Your task to perform on an android device: see creations saved in the google photos Image 0: 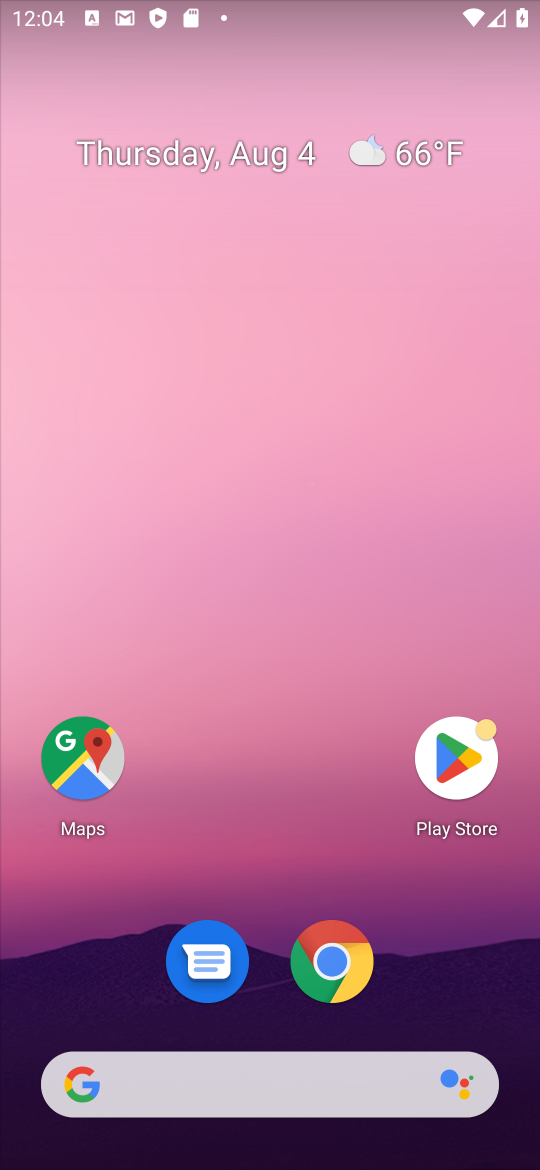
Step 0: drag from (264, 738) to (362, 18)
Your task to perform on an android device: see creations saved in the google photos Image 1: 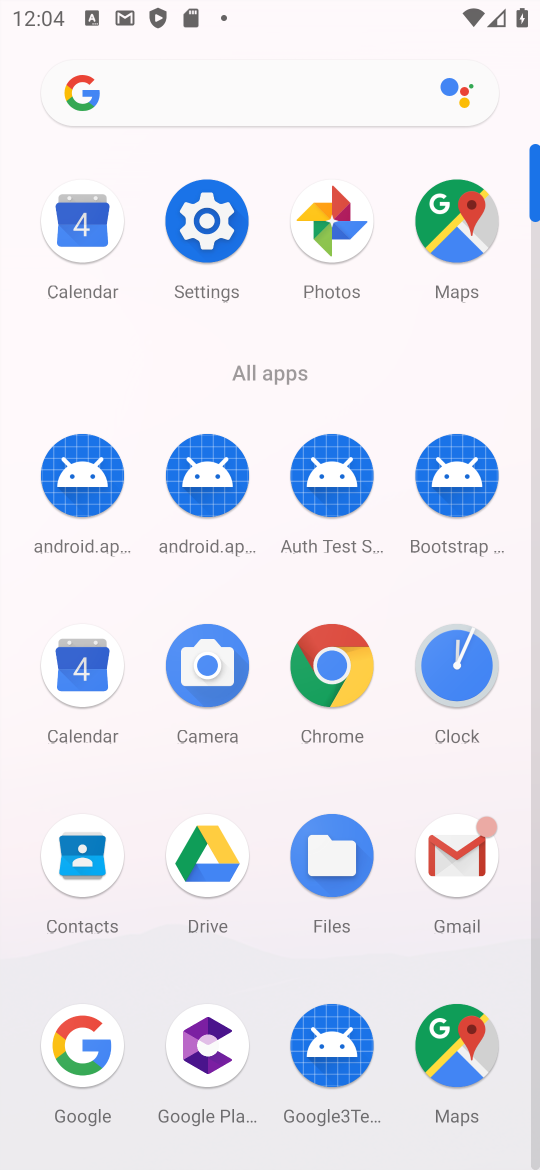
Step 1: click (346, 212)
Your task to perform on an android device: see creations saved in the google photos Image 2: 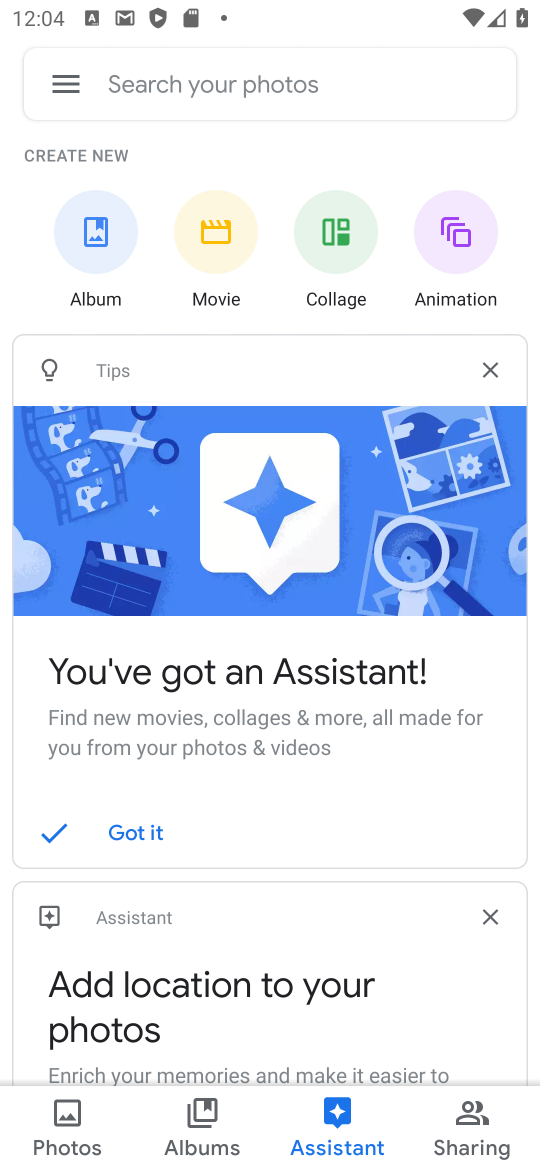
Step 2: click (346, 79)
Your task to perform on an android device: see creations saved in the google photos Image 3: 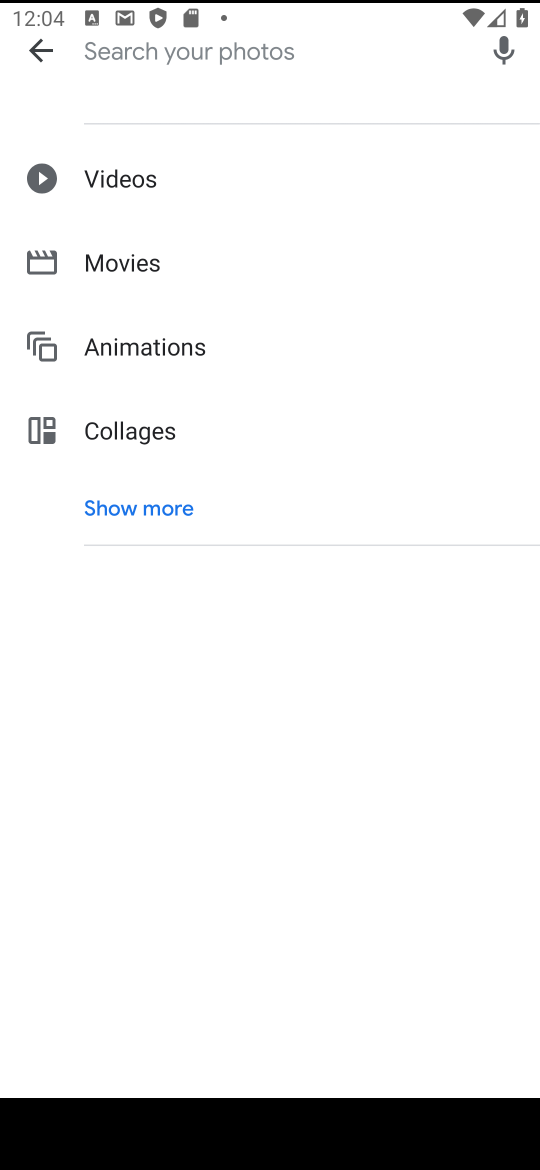
Step 3: click (173, 504)
Your task to perform on an android device: see creations saved in the google photos Image 4: 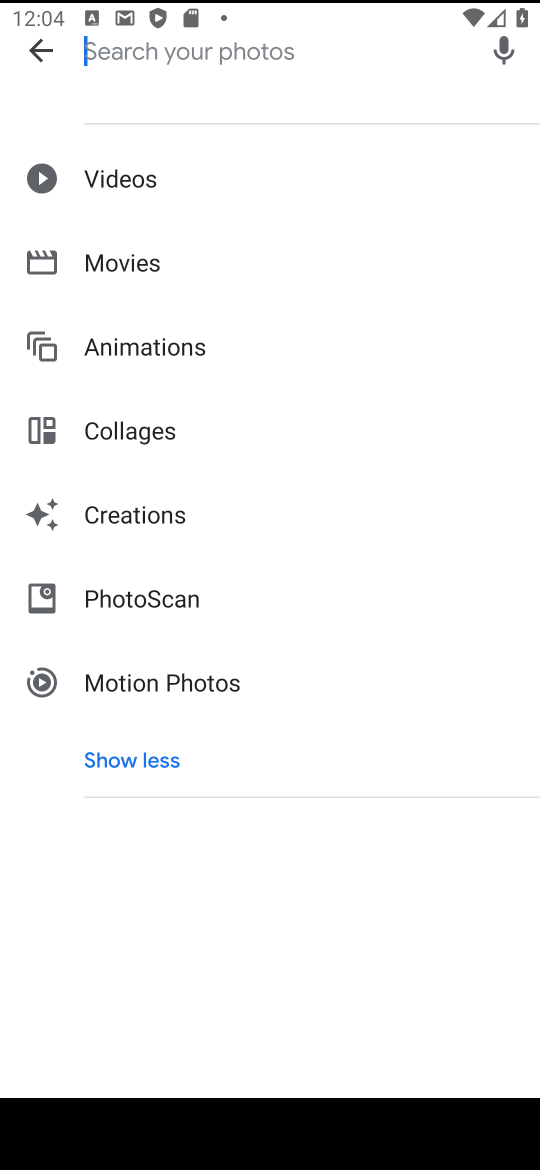
Step 4: click (173, 504)
Your task to perform on an android device: see creations saved in the google photos Image 5: 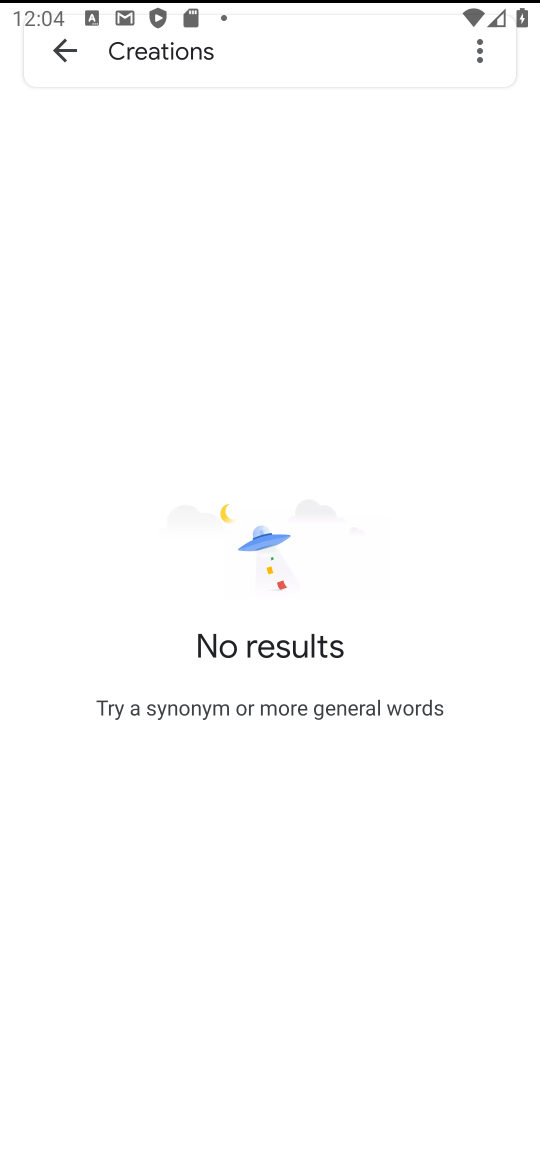
Step 5: task complete